Your task to perform on an android device: Check the news Image 0: 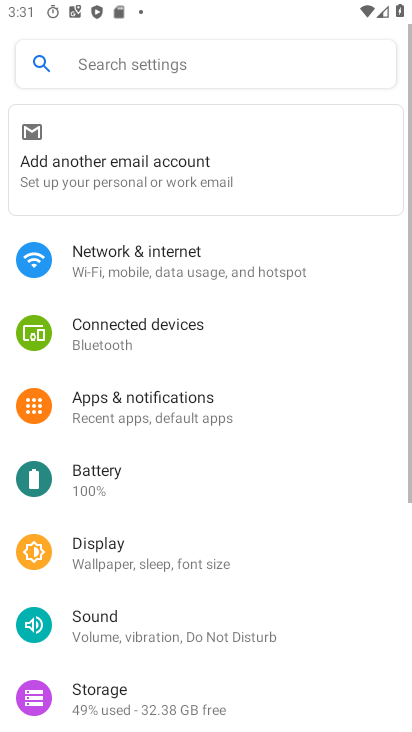
Step 0: press home button
Your task to perform on an android device: Check the news Image 1: 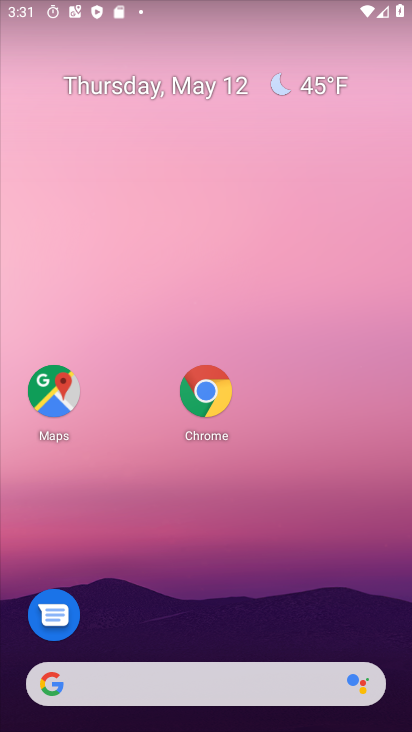
Step 1: drag from (190, 608) to (171, 84)
Your task to perform on an android device: Check the news Image 2: 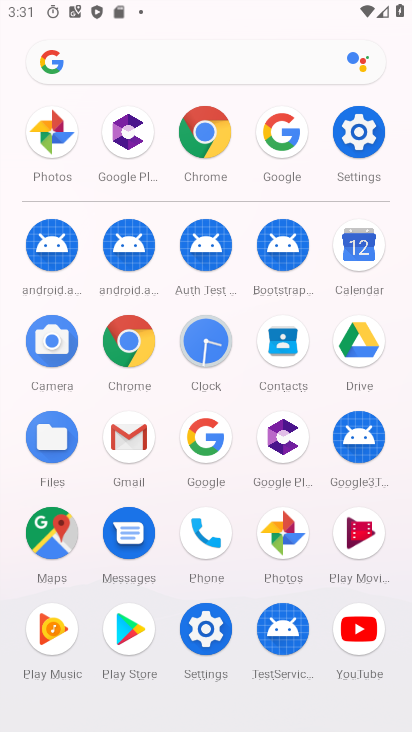
Step 2: click (210, 431)
Your task to perform on an android device: Check the news Image 3: 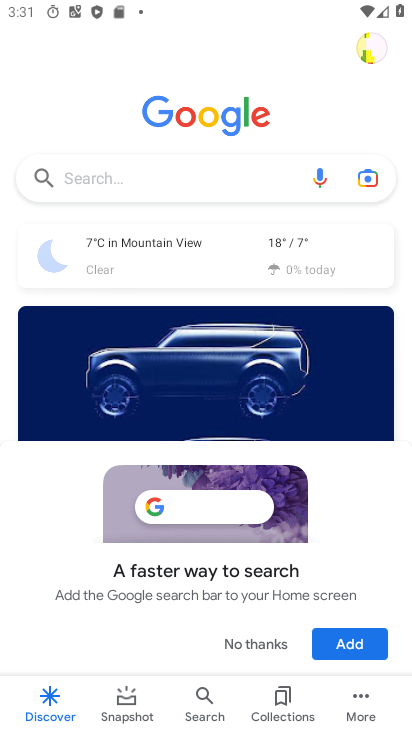
Step 3: click (154, 183)
Your task to perform on an android device: Check the news Image 4: 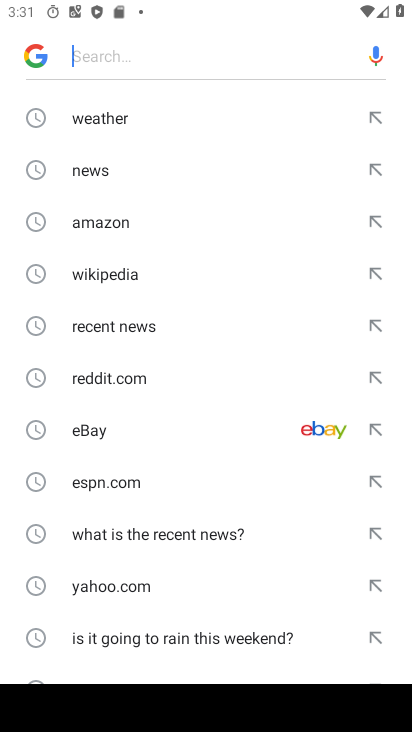
Step 4: click (126, 164)
Your task to perform on an android device: Check the news Image 5: 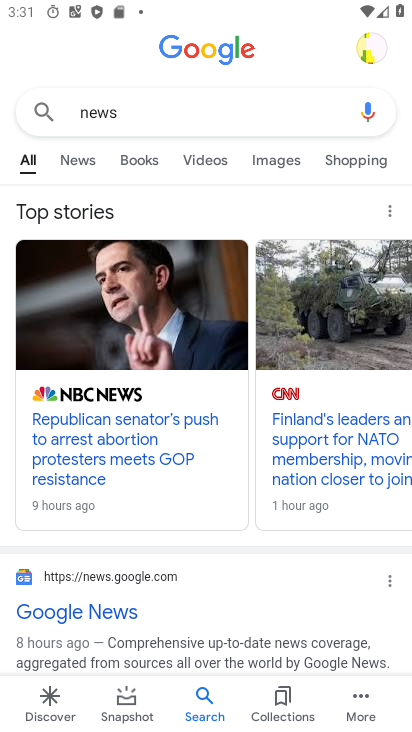
Step 5: task complete